Your task to perform on an android device: open the mobile data screen to see how much data has been used Image 0: 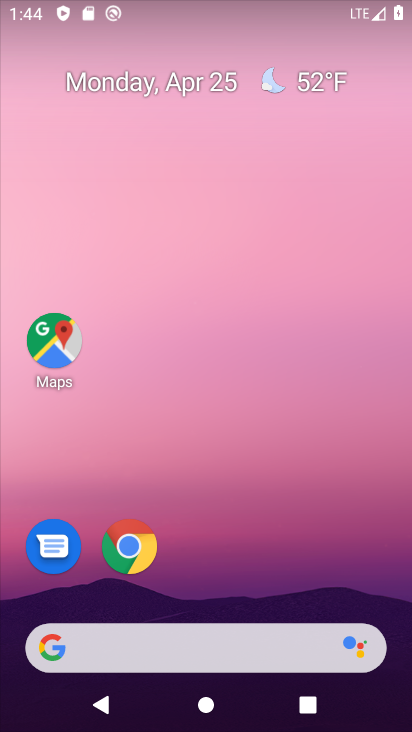
Step 0: drag from (131, 496) to (69, 147)
Your task to perform on an android device: open the mobile data screen to see how much data has been used Image 1: 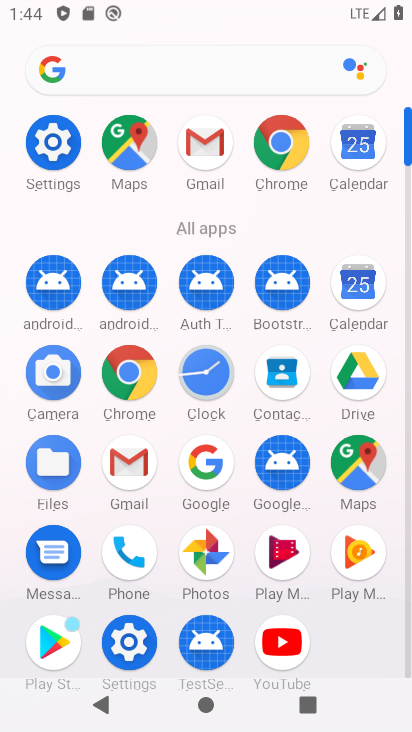
Step 1: click (130, 635)
Your task to perform on an android device: open the mobile data screen to see how much data has been used Image 2: 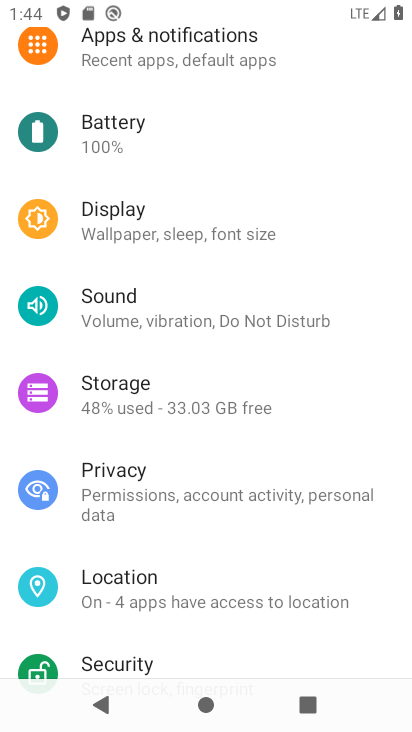
Step 2: drag from (153, 212) to (85, 425)
Your task to perform on an android device: open the mobile data screen to see how much data has been used Image 3: 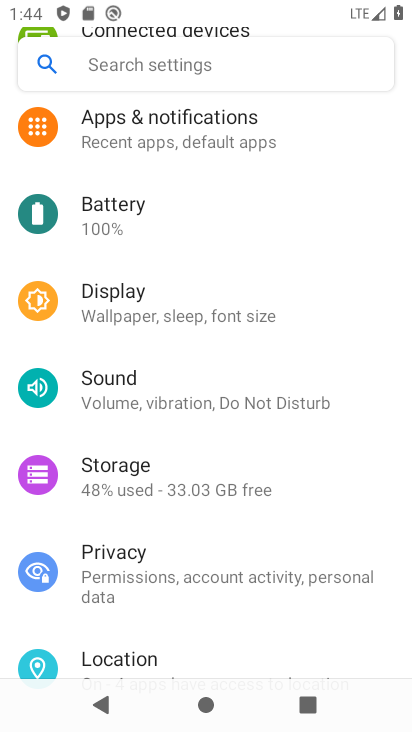
Step 3: drag from (114, 245) to (122, 574)
Your task to perform on an android device: open the mobile data screen to see how much data has been used Image 4: 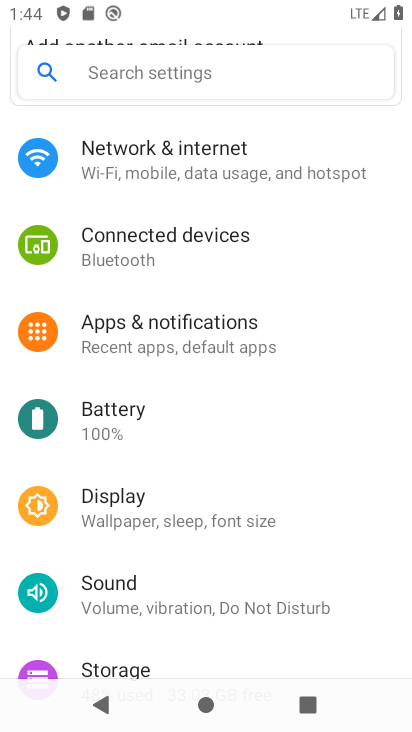
Step 4: drag from (157, 150) to (133, 501)
Your task to perform on an android device: open the mobile data screen to see how much data has been used Image 5: 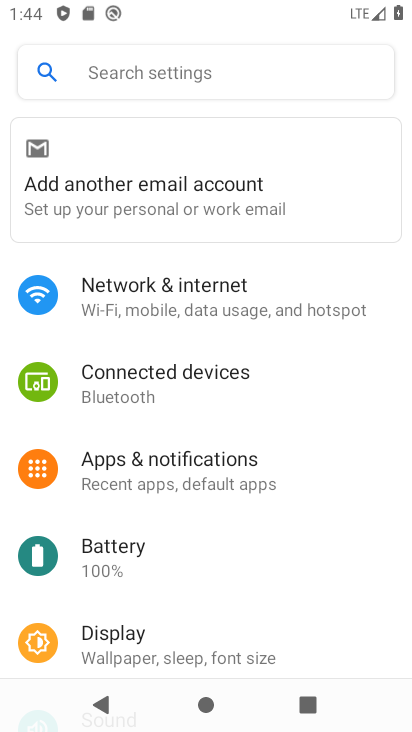
Step 5: click (144, 323)
Your task to perform on an android device: open the mobile data screen to see how much data has been used Image 6: 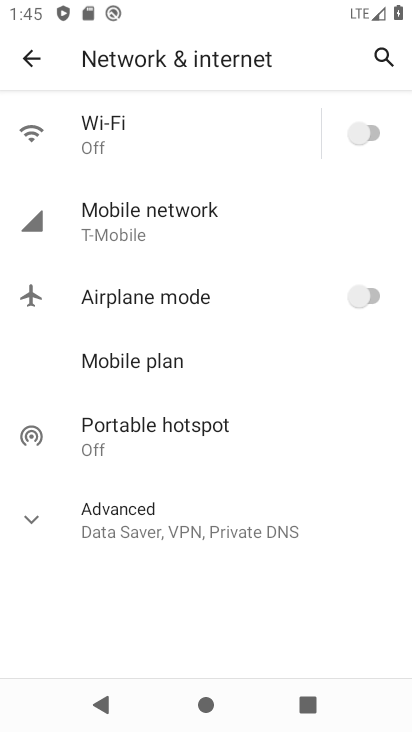
Step 6: click (252, 238)
Your task to perform on an android device: open the mobile data screen to see how much data has been used Image 7: 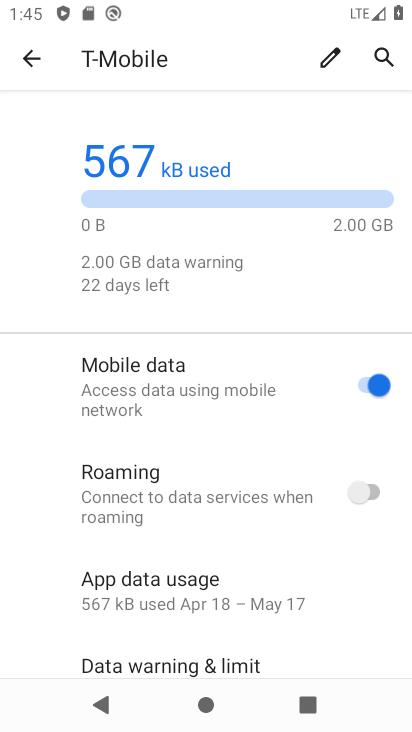
Step 7: task complete